Your task to perform on an android device: Open Google Chrome and click the shortcut for Amazon.com Image 0: 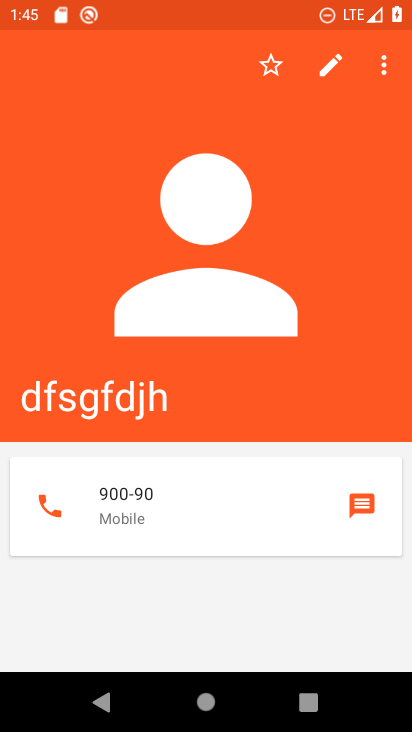
Step 0: press home button
Your task to perform on an android device: Open Google Chrome and click the shortcut for Amazon.com Image 1: 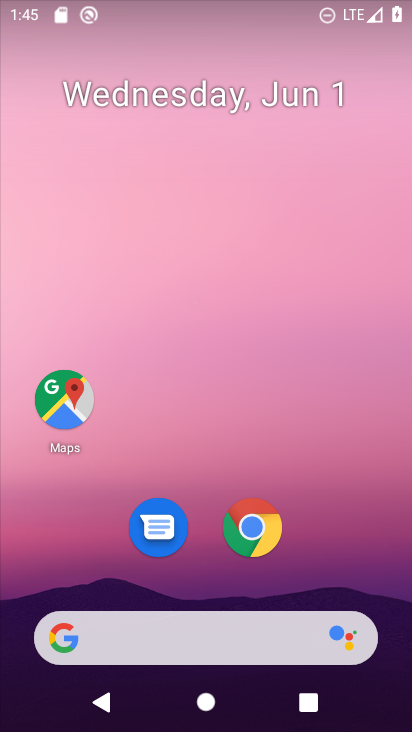
Step 1: click (259, 534)
Your task to perform on an android device: Open Google Chrome and click the shortcut for Amazon.com Image 2: 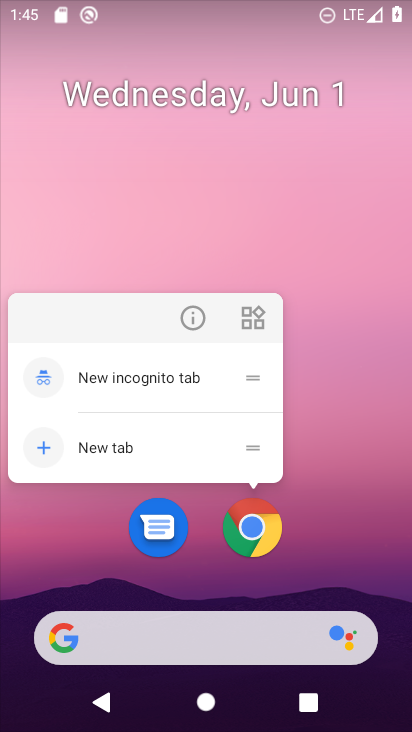
Step 2: click (259, 534)
Your task to perform on an android device: Open Google Chrome and click the shortcut for Amazon.com Image 3: 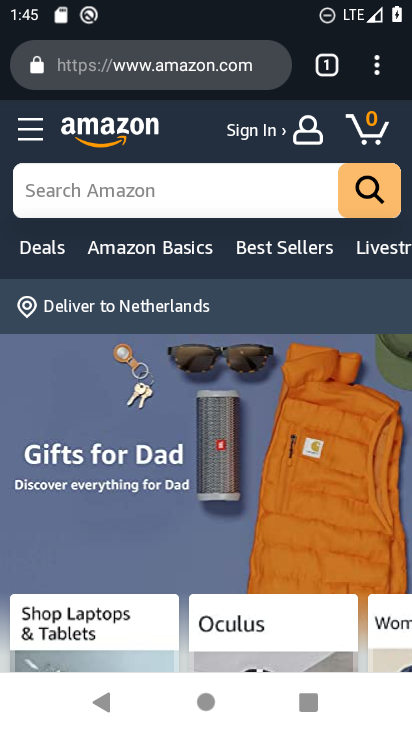
Step 3: task complete